Your task to perform on an android device: Open CNN.com Image 0: 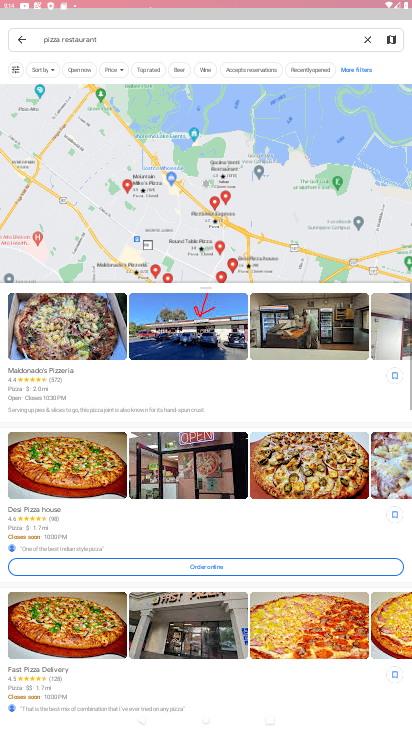
Step 0: press home button
Your task to perform on an android device: Open CNN.com Image 1: 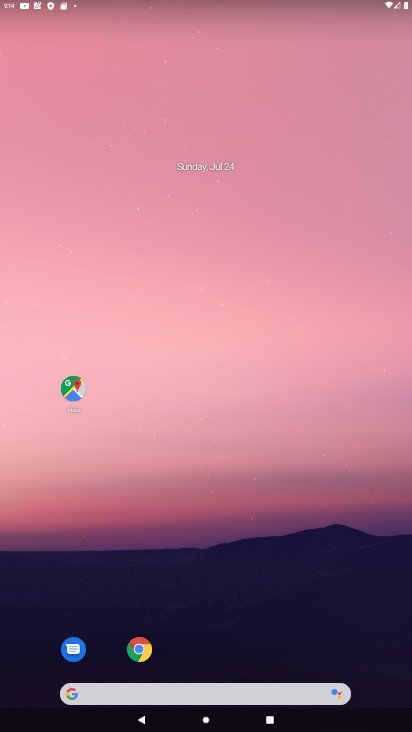
Step 1: drag from (367, 628) to (369, 56)
Your task to perform on an android device: Open CNN.com Image 2: 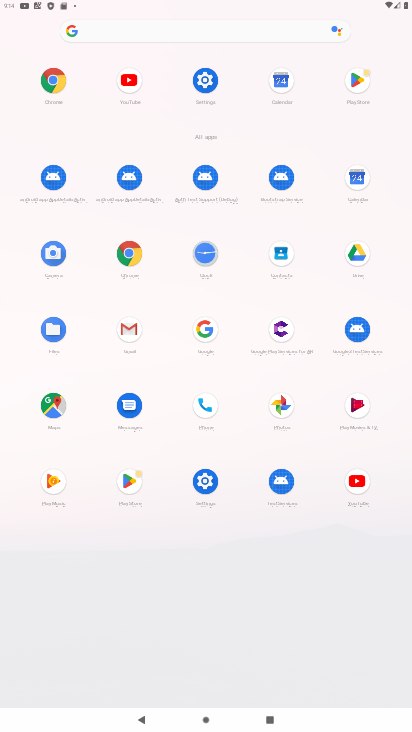
Step 2: click (126, 265)
Your task to perform on an android device: Open CNN.com Image 3: 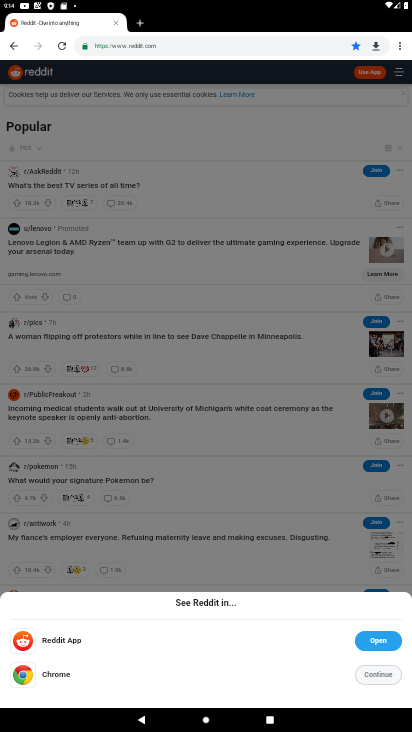
Step 3: click (186, 43)
Your task to perform on an android device: Open CNN.com Image 4: 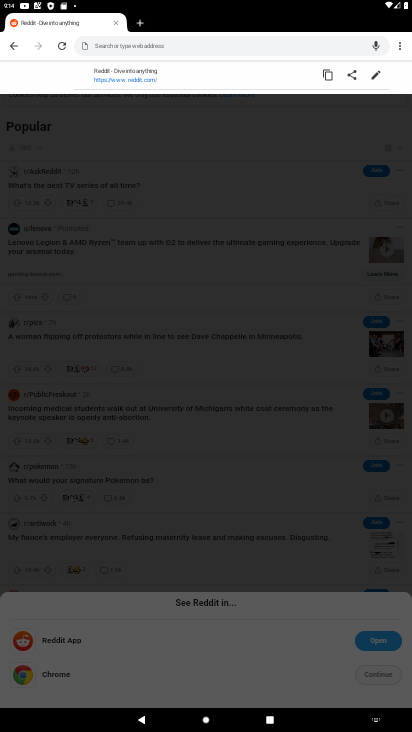
Step 4: type "cnn.com"
Your task to perform on an android device: Open CNN.com Image 5: 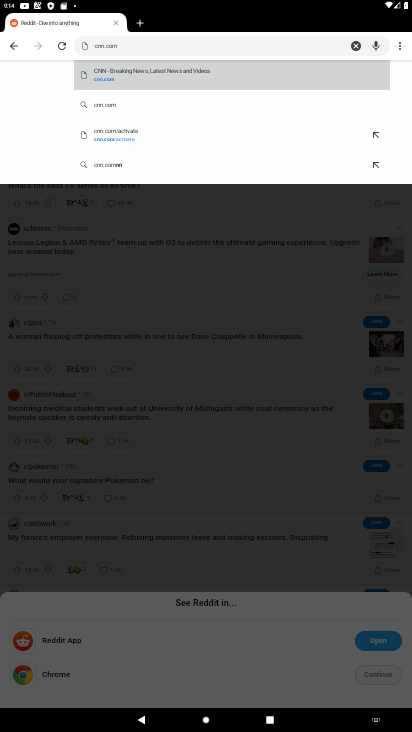
Step 5: click (259, 71)
Your task to perform on an android device: Open CNN.com Image 6: 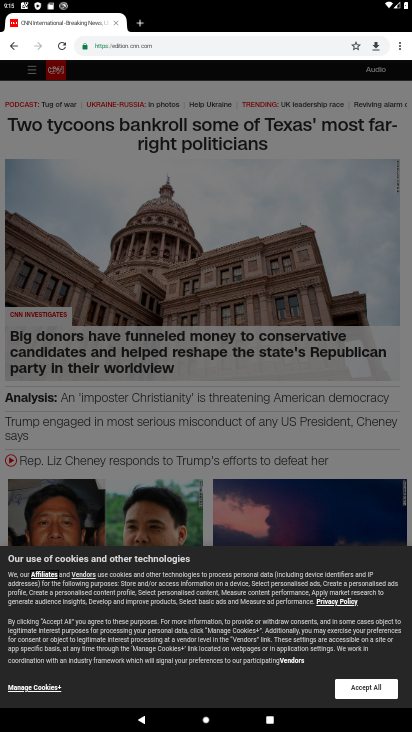
Step 6: task complete